Your task to perform on an android device: When is my next appointment? Image 0: 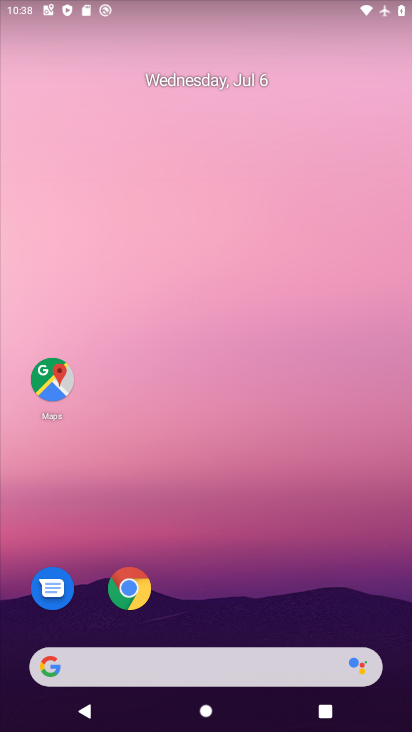
Step 0: drag from (250, 598) to (284, 169)
Your task to perform on an android device: When is my next appointment? Image 1: 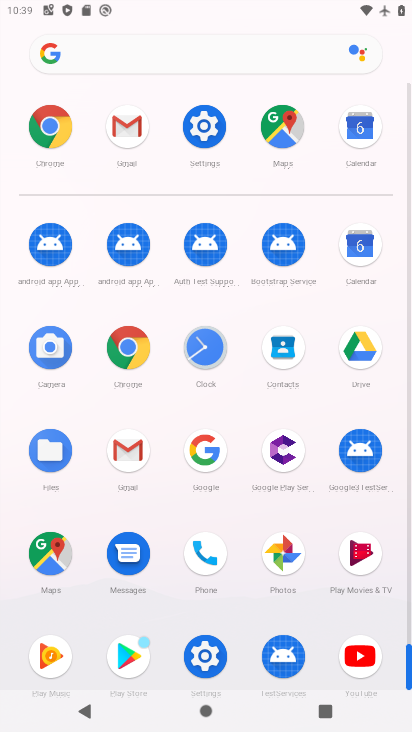
Step 1: click (362, 235)
Your task to perform on an android device: When is my next appointment? Image 2: 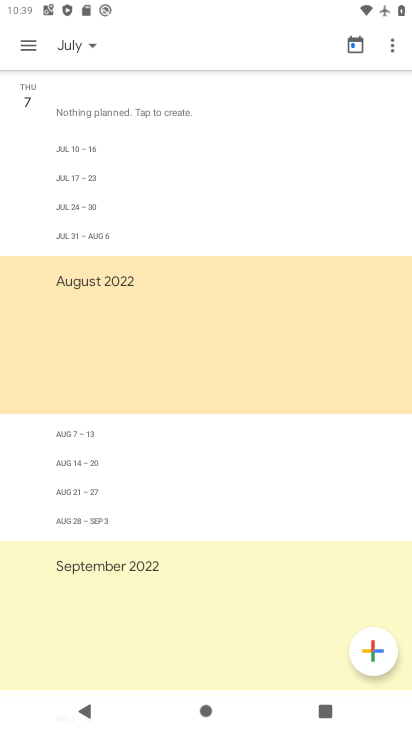
Step 2: click (130, 174)
Your task to perform on an android device: When is my next appointment? Image 3: 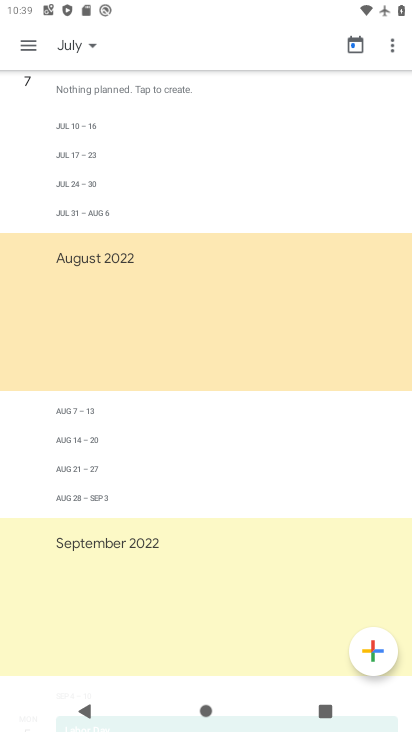
Step 3: click (20, 48)
Your task to perform on an android device: When is my next appointment? Image 4: 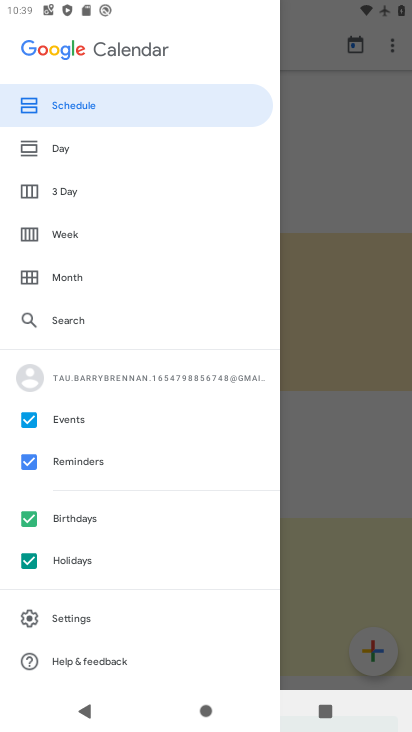
Step 4: click (83, 268)
Your task to perform on an android device: When is my next appointment? Image 5: 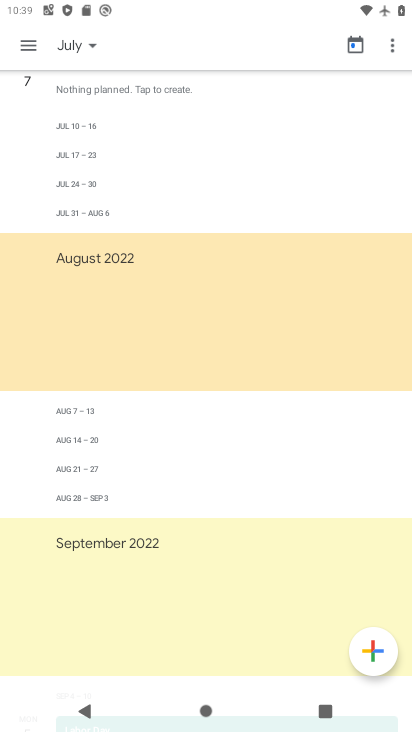
Step 5: click (83, 271)
Your task to perform on an android device: When is my next appointment? Image 6: 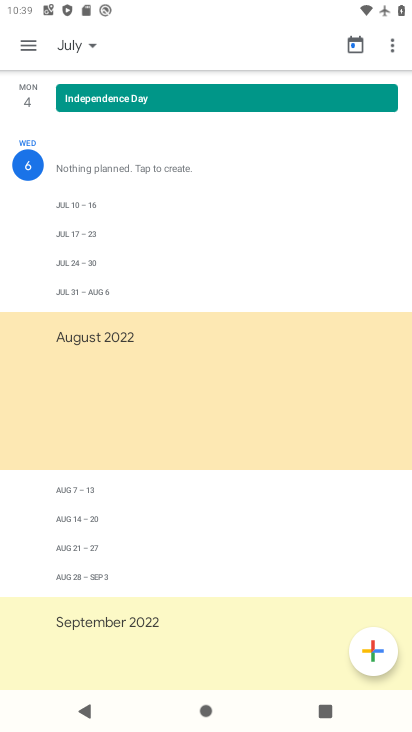
Step 6: click (19, 41)
Your task to perform on an android device: When is my next appointment? Image 7: 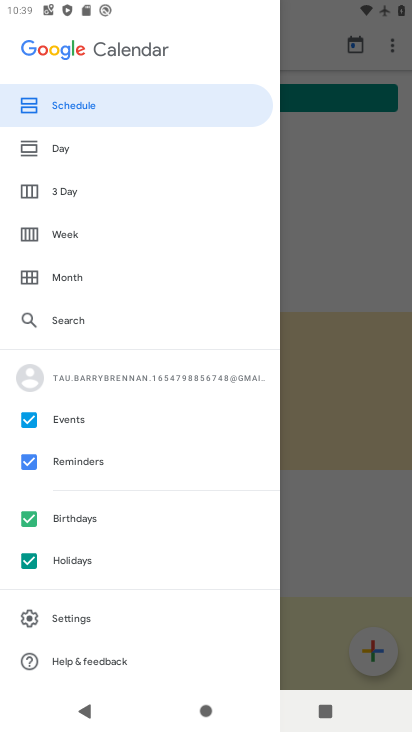
Step 7: click (87, 271)
Your task to perform on an android device: When is my next appointment? Image 8: 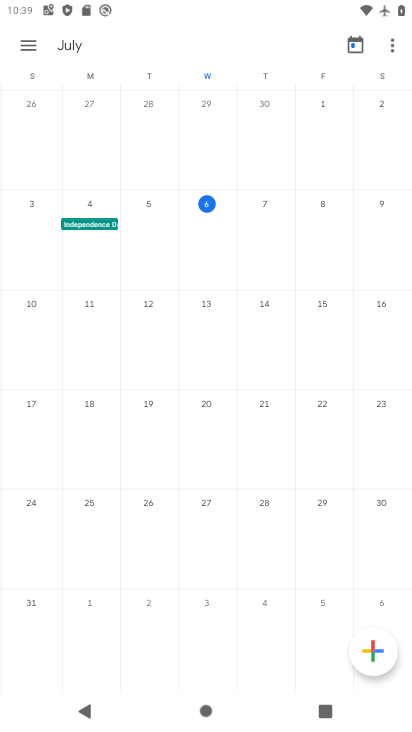
Step 8: click (325, 237)
Your task to perform on an android device: When is my next appointment? Image 9: 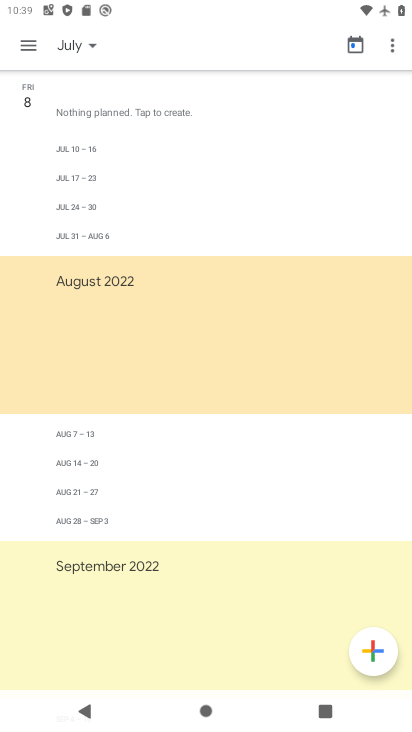
Step 9: task complete